Your task to perform on an android device: turn on notifications settings in the gmail app Image 0: 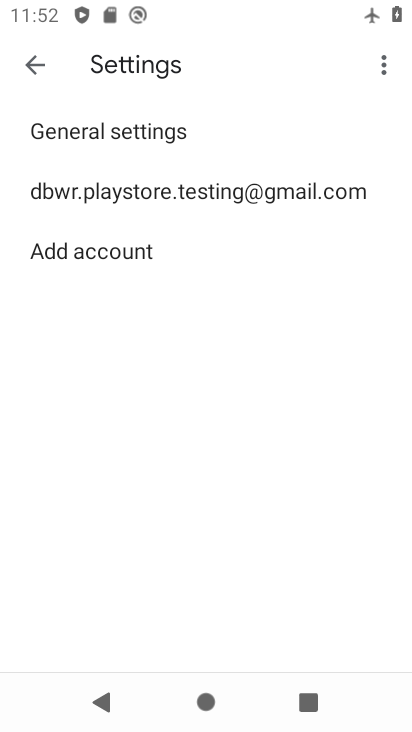
Step 0: click (297, 191)
Your task to perform on an android device: turn on notifications settings in the gmail app Image 1: 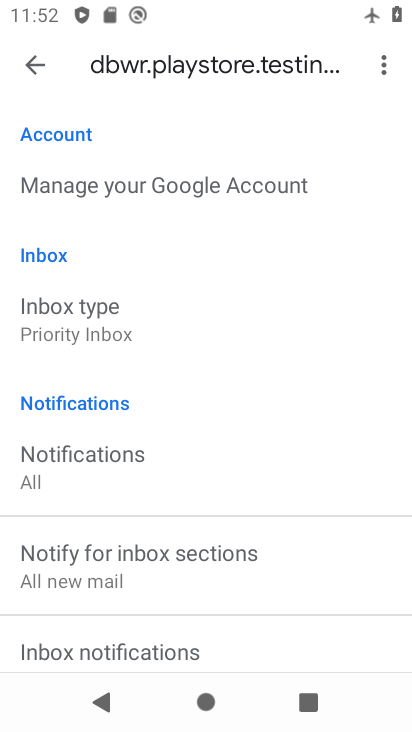
Step 1: click (38, 56)
Your task to perform on an android device: turn on notifications settings in the gmail app Image 2: 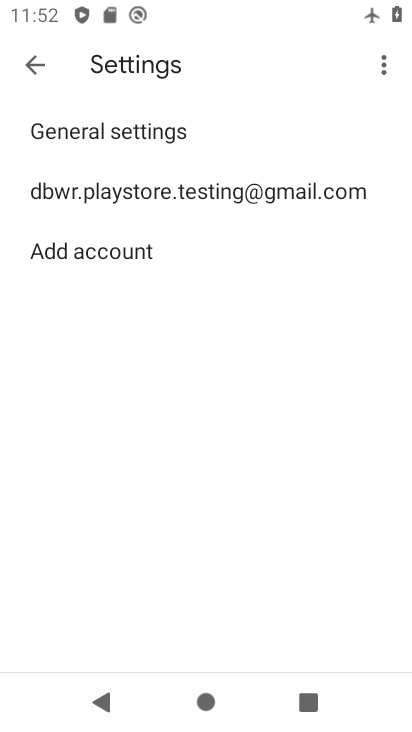
Step 2: click (198, 124)
Your task to perform on an android device: turn on notifications settings in the gmail app Image 3: 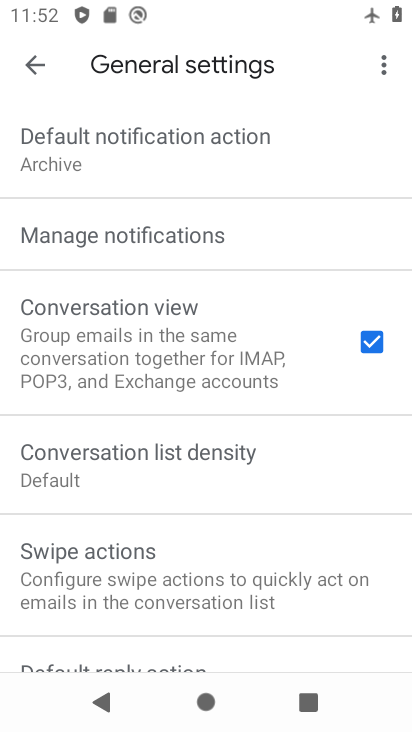
Step 3: click (233, 240)
Your task to perform on an android device: turn on notifications settings in the gmail app Image 4: 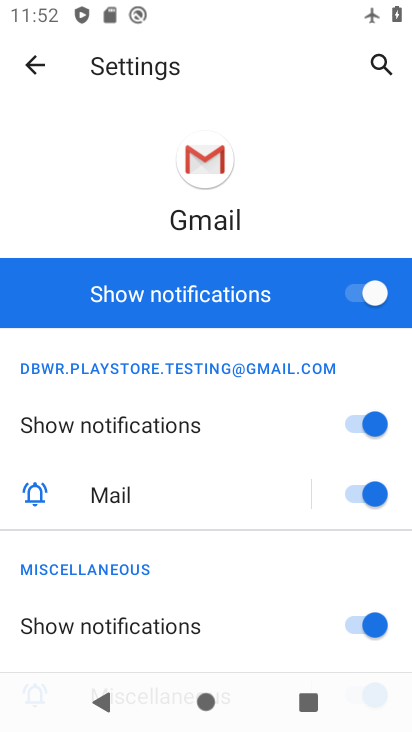
Step 4: task complete